Your task to perform on an android device: Clear the cart on ebay.com. Search for "macbook" on ebay.com, select the first entry, add it to the cart, then select checkout. Image 0: 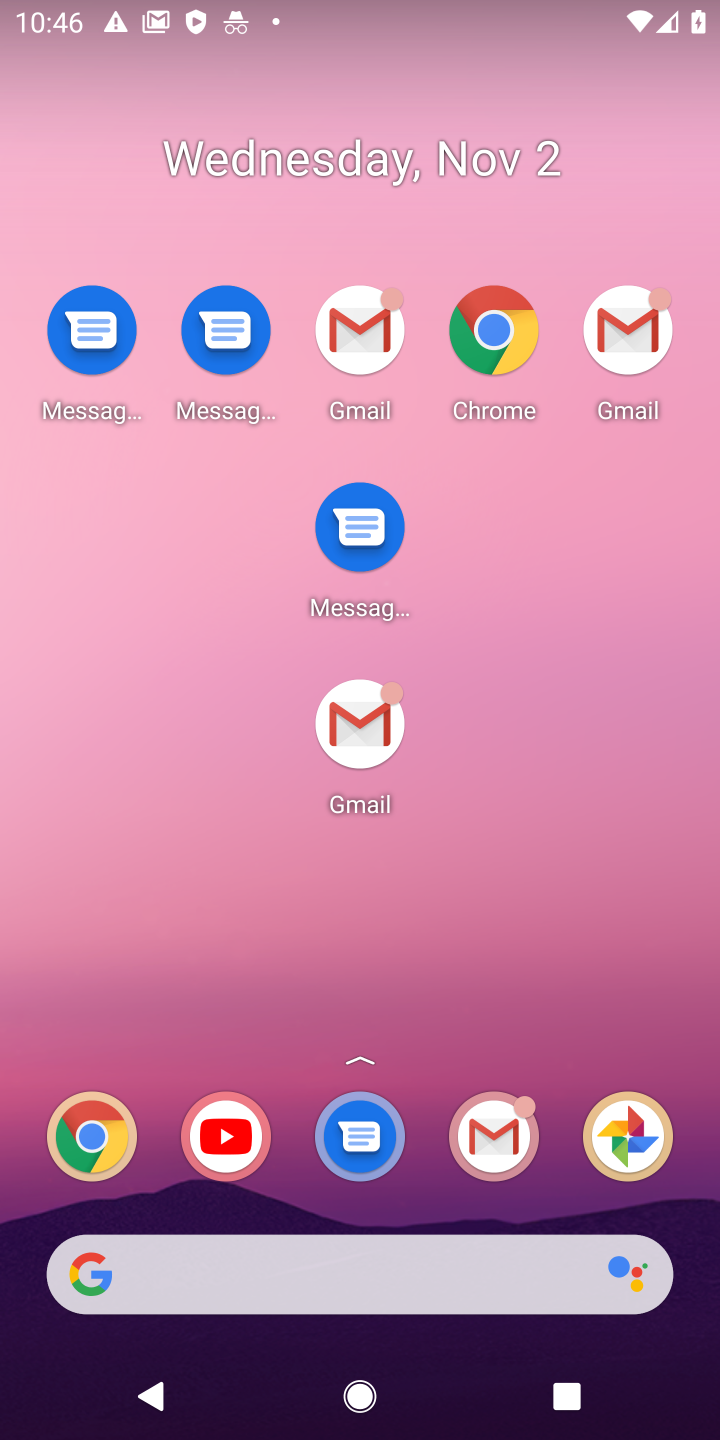
Step 0: click (84, 826)
Your task to perform on an android device: Clear the cart on ebay.com. Search for "macbook" on ebay.com, select the first entry, add it to the cart, then select checkout. Image 1: 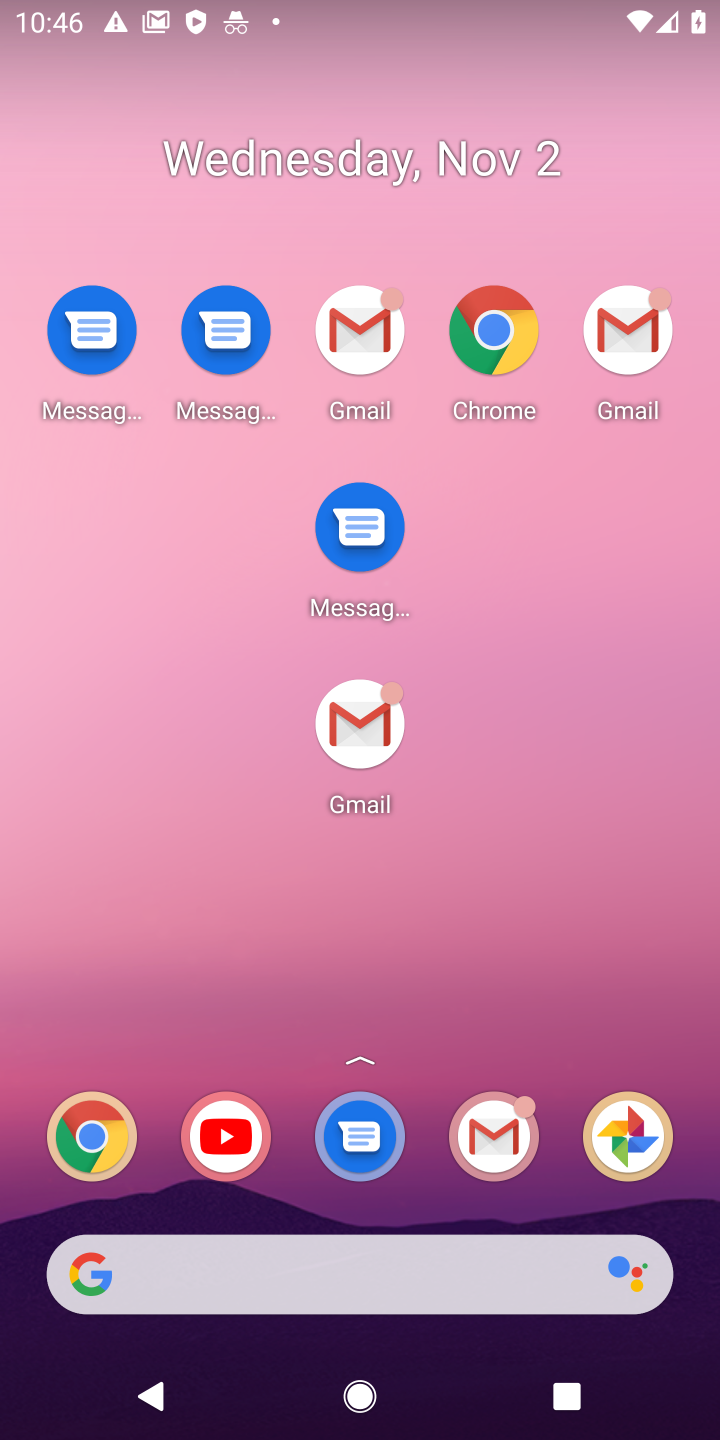
Step 1: drag from (315, 1013) to (319, 356)
Your task to perform on an android device: Clear the cart on ebay.com. Search for "macbook" on ebay.com, select the first entry, add it to the cart, then select checkout. Image 2: 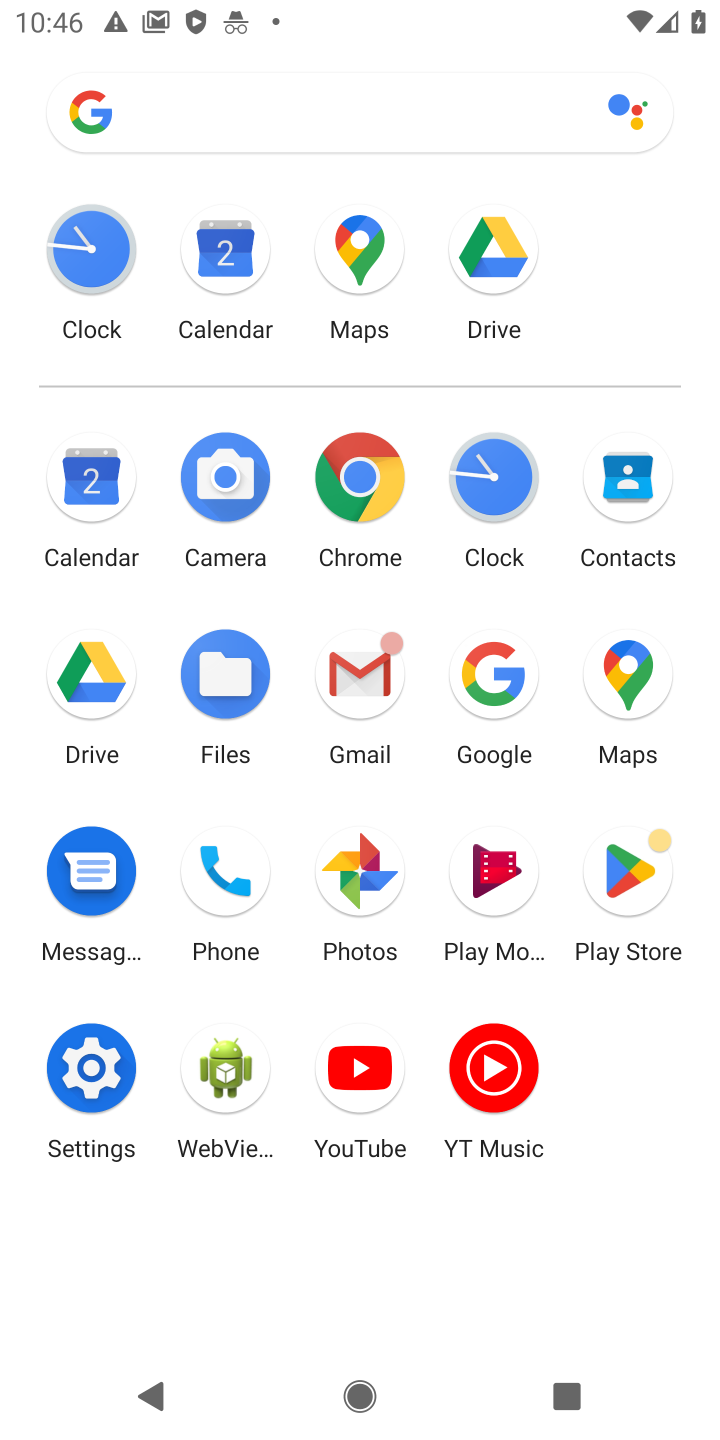
Step 2: click (480, 645)
Your task to perform on an android device: Clear the cart on ebay.com. Search for "macbook" on ebay.com, select the first entry, add it to the cart, then select checkout. Image 3: 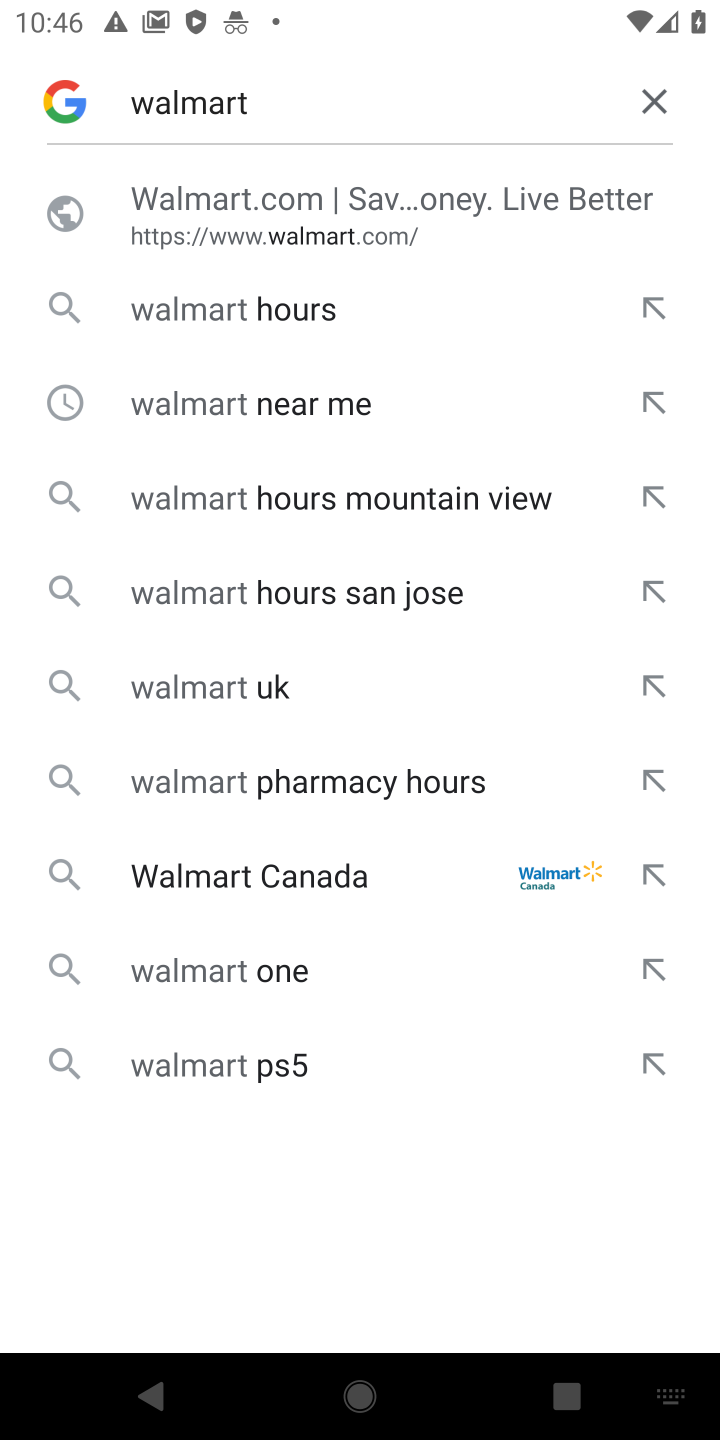
Step 3: click (649, 94)
Your task to perform on an android device: Clear the cart on ebay.com. Search for "macbook" on ebay.com, select the first entry, add it to the cart, then select checkout. Image 4: 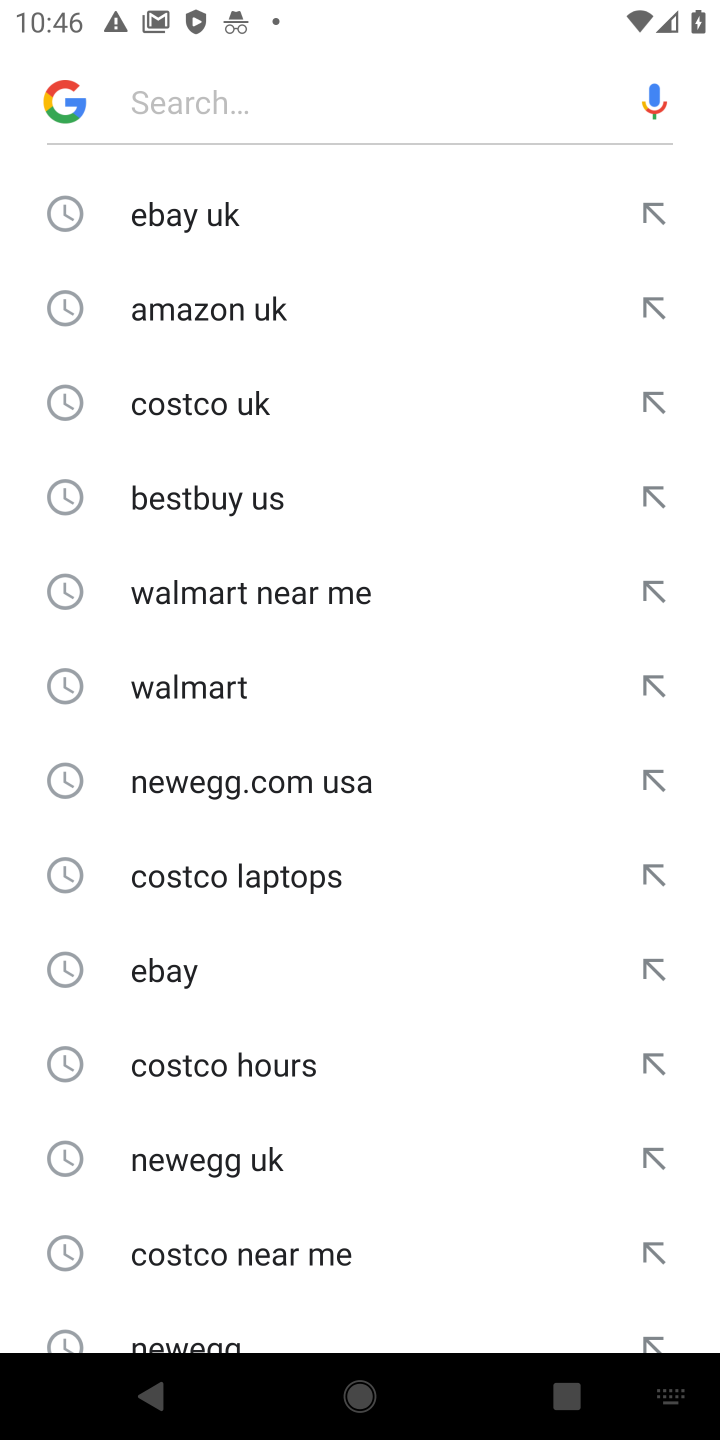
Step 4: click (218, 210)
Your task to perform on an android device: Clear the cart on ebay.com. Search for "macbook" on ebay.com, select the first entry, add it to the cart, then select checkout. Image 5: 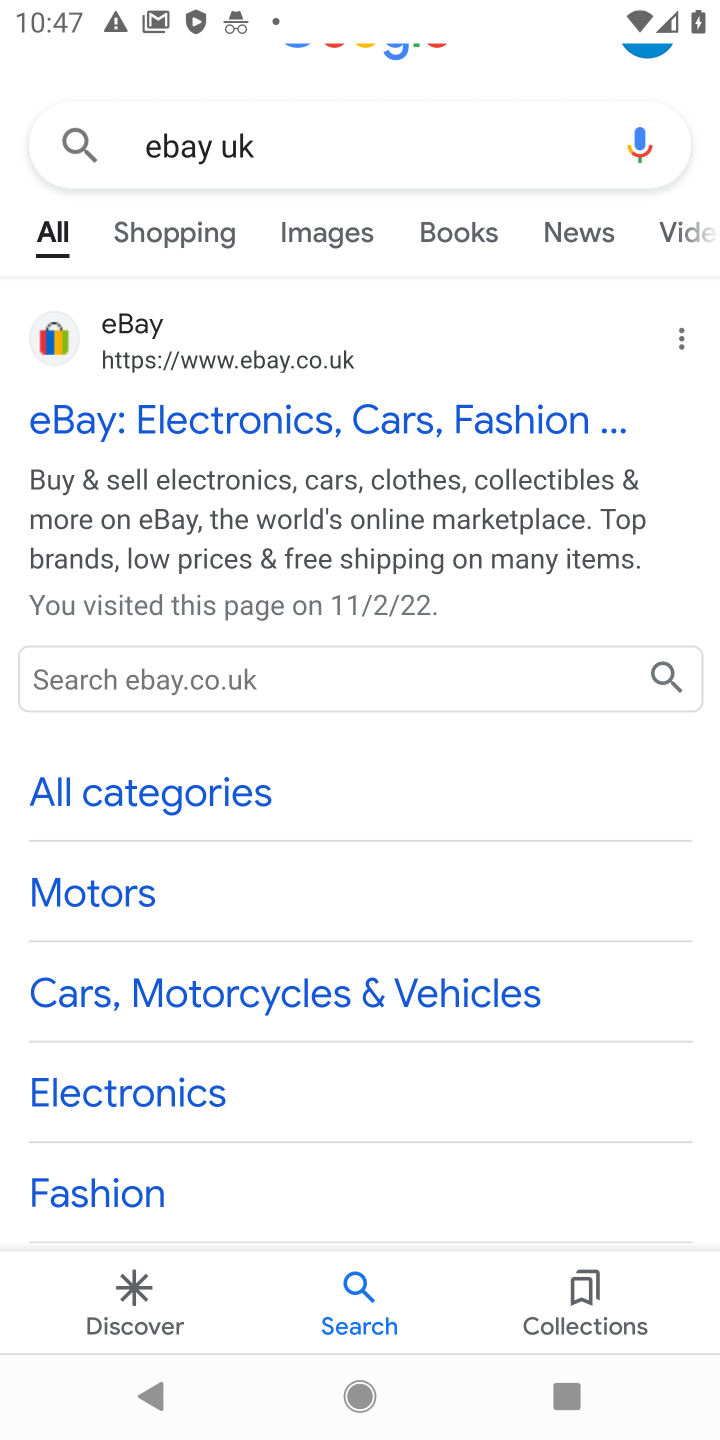
Step 5: click (173, 409)
Your task to perform on an android device: Clear the cart on ebay.com. Search for "macbook" on ebay.com, select the first entry, add it to the cart, then select checkout. Image 6: 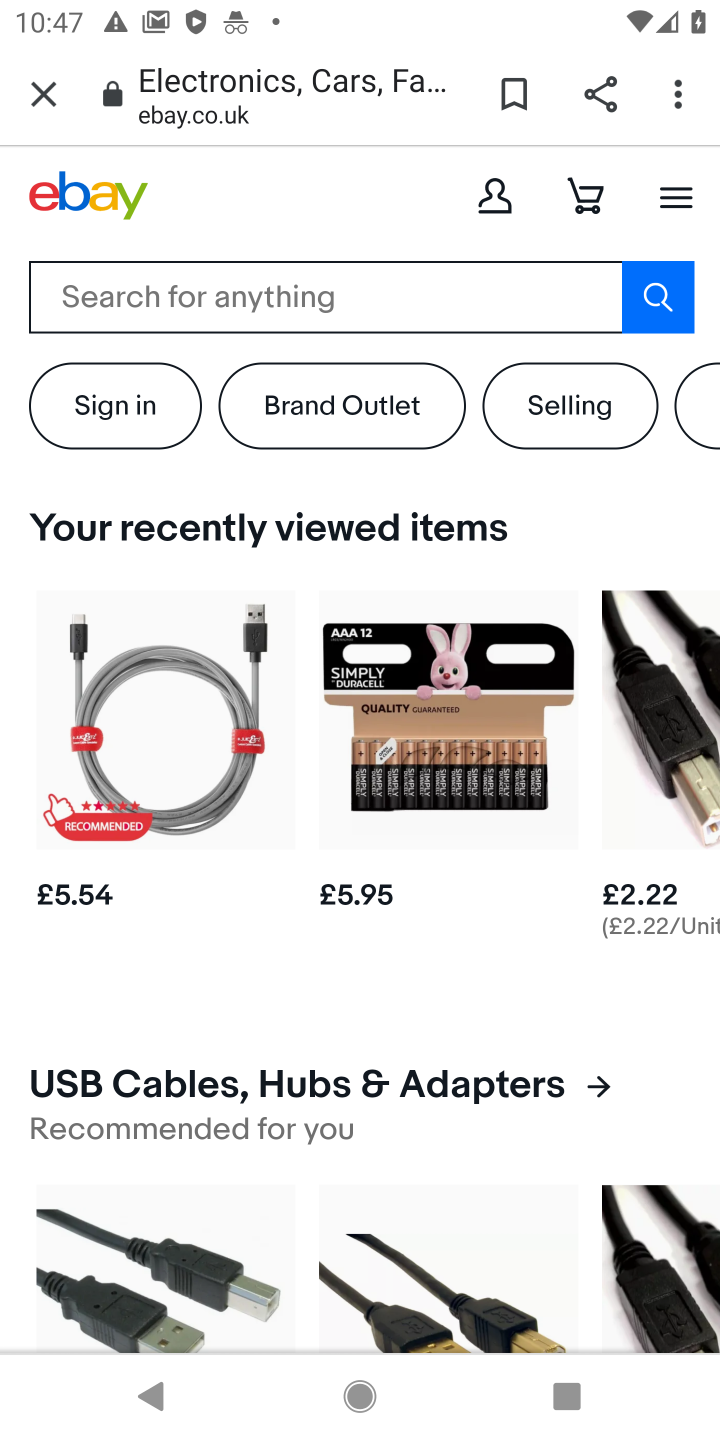
Step 6: click (390, 291)
Your task to perform on an android device: Clear the cart on ebay.com. Search for "macbook" on ebay.com, select the first entry, add it to the cart, then select checkout. Image 7: 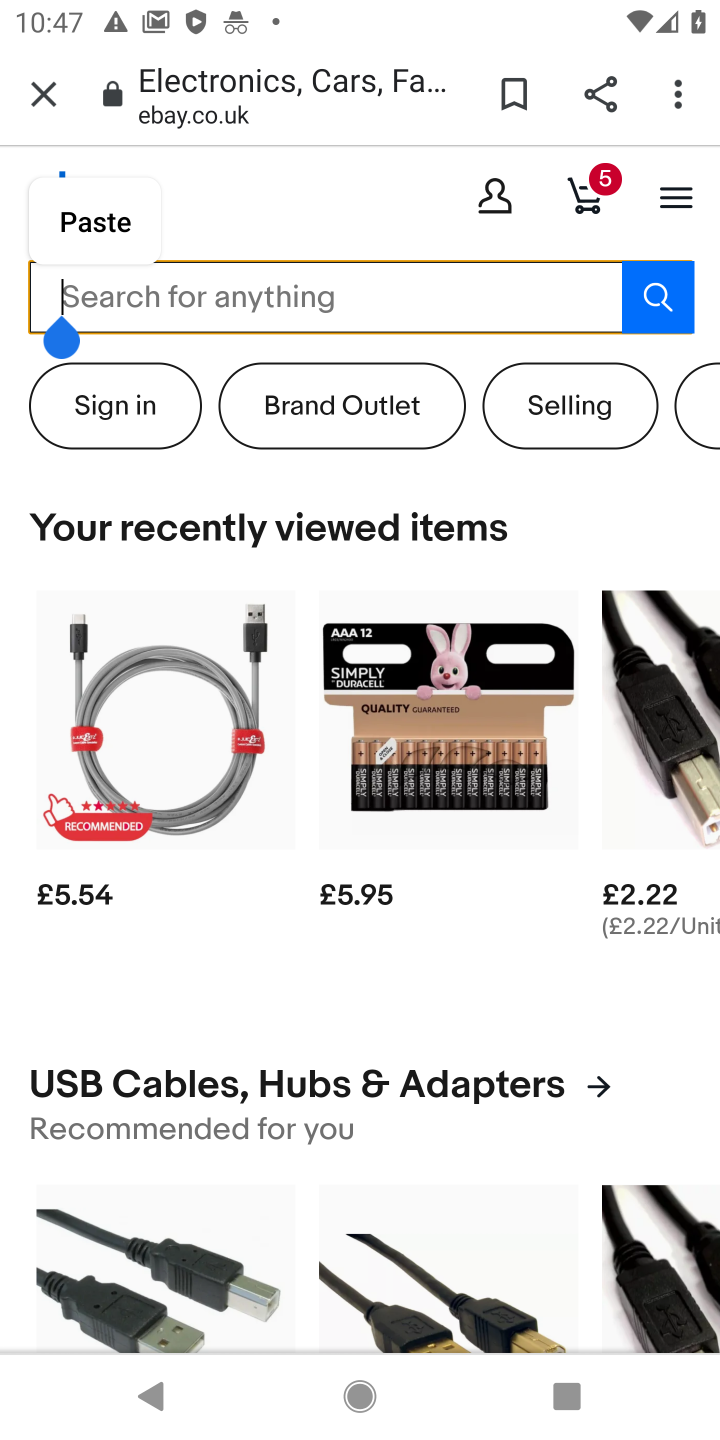
Step 7: click (296, 279)
Your task to perform on an android device: Clear the cart on ebay.com. Search for "macbook" on ebay.com, select the first entry, add it to the cart, then select checkout. Image 8: 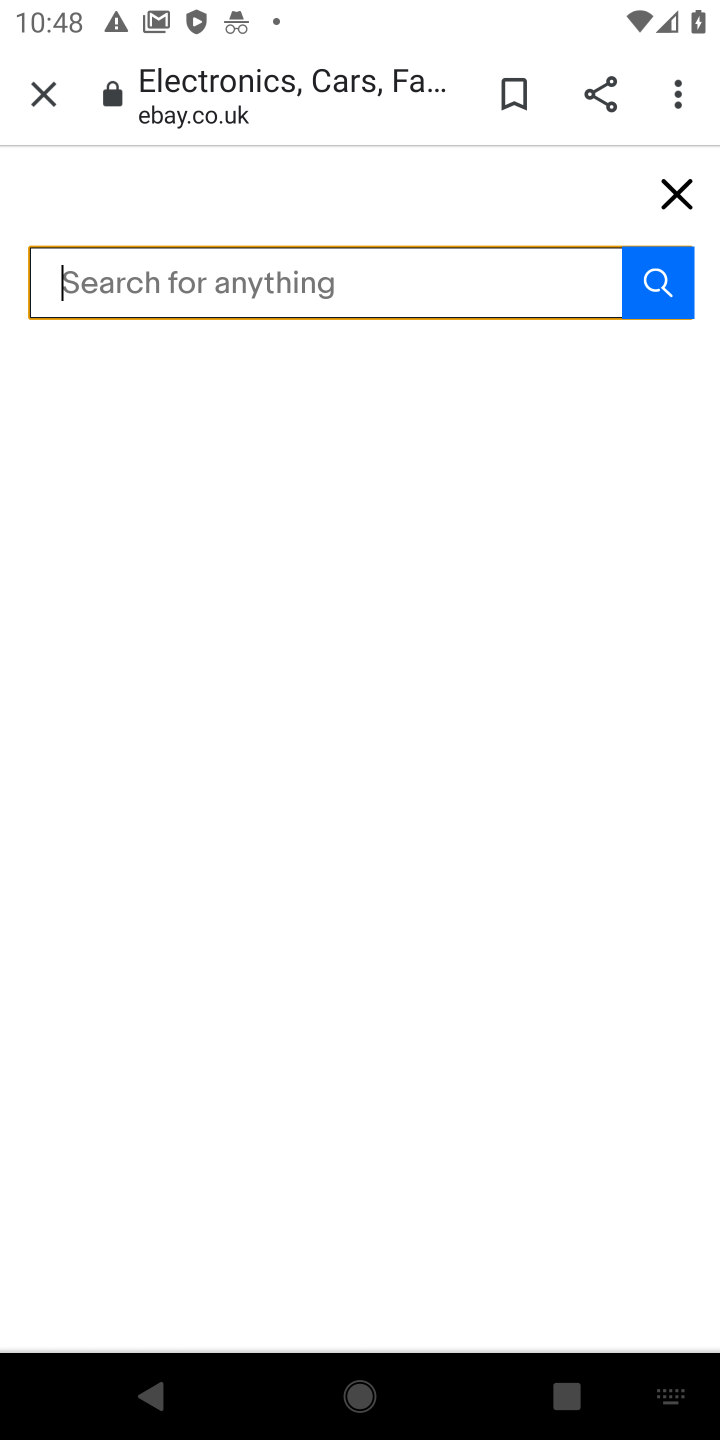
Step 8: click (274, 258)
Your task to perform on an android device: Clear the cart on ebay.com. Search for "macbook" on ebay.com, select the first entry, add it to the cart, then select checkout. Image 9: 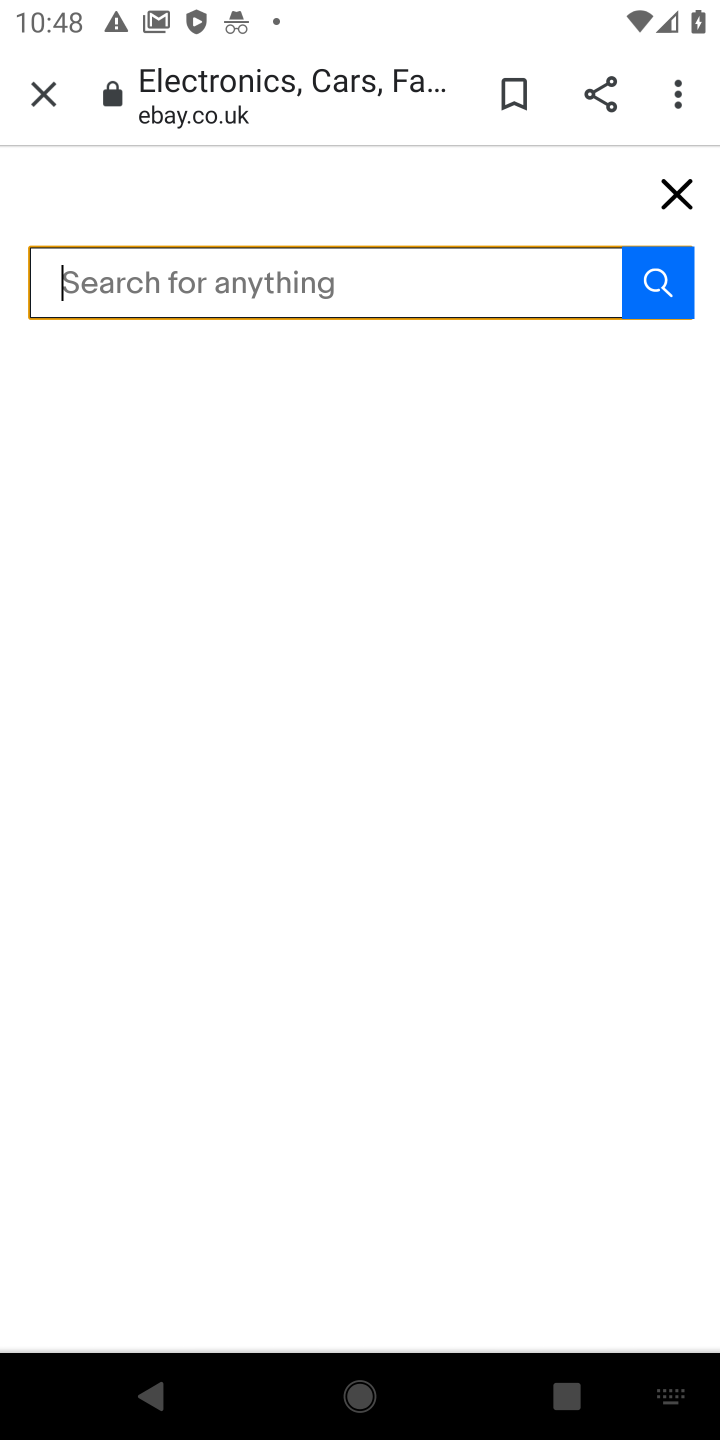
Step 9: type "macbook "
Your task to perform on an android device: Clear the cart on ebay.com. Search for "macbook" on ebay.com, select the first entry, add it to the cart, then select checkout. Image 10: 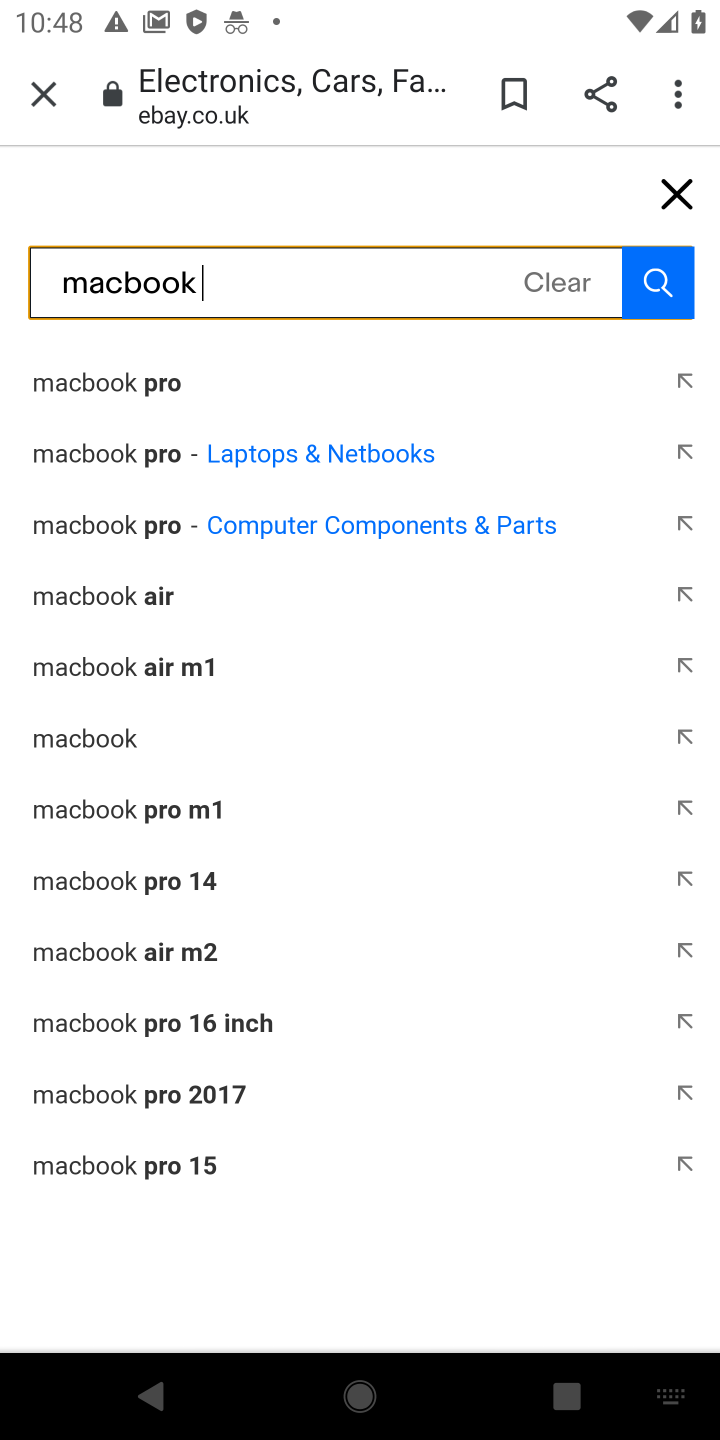
Step 10: click (128, 376)
Your task to perform on an android device: Clear the cart on ebay.com. Search for "macbook" on ebay.com, select the first entry, add it to the cart, then select checkout. Image 11: 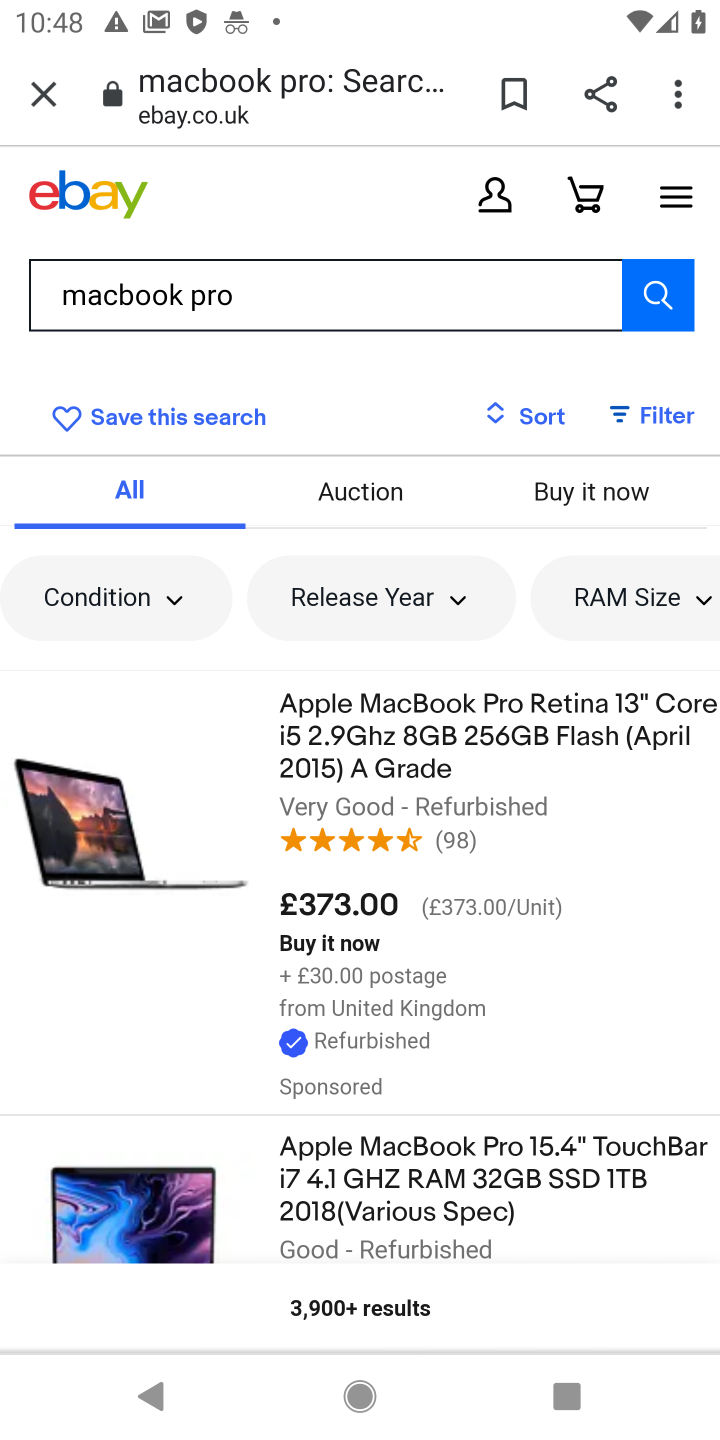
Step 11: click (418, 724)
Your task to perform on an android device: Clear the cart on ebay.com. Search for "macbook" on ebay.com, select the first entry, add it to the cart, then select checkout. Image 12: 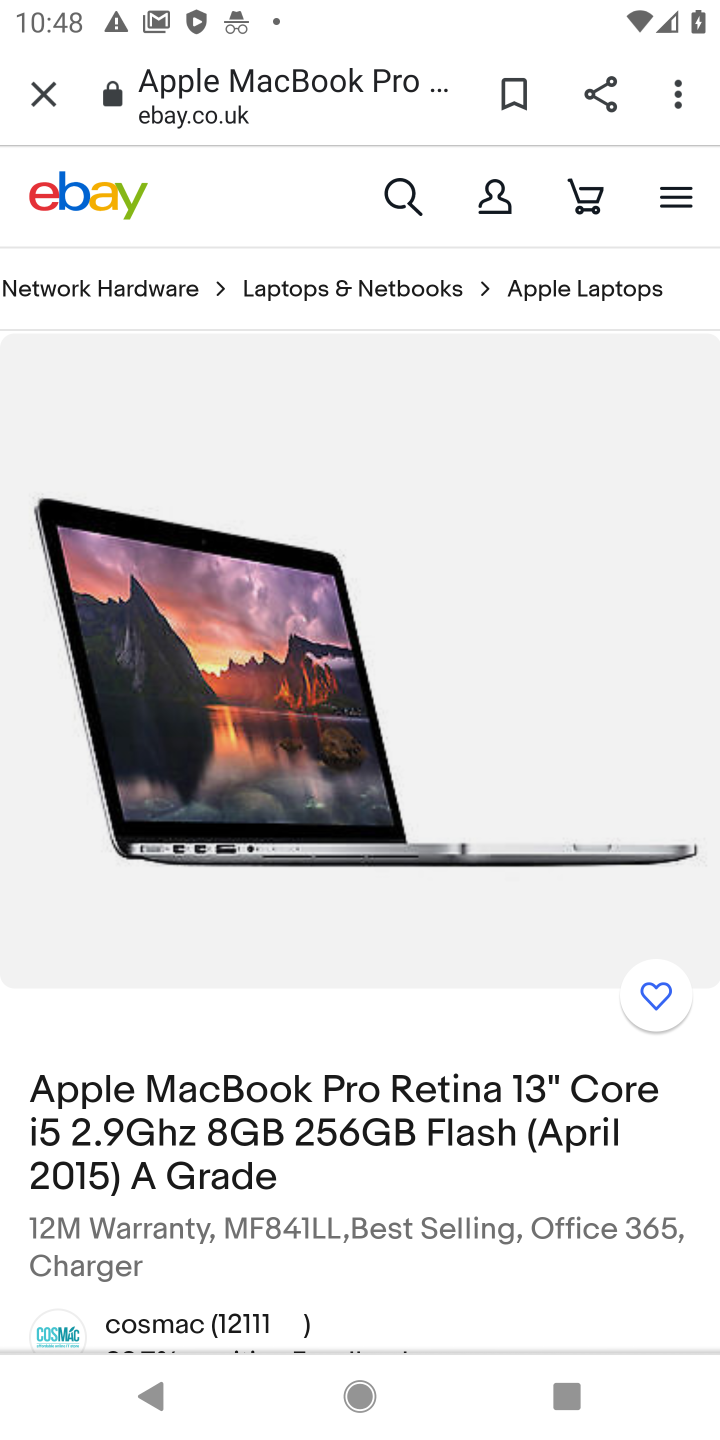
Step 12: drag from (311, 874) to (374, 398)
Your task to perform on an android device: Clear the cart on ebay.com. Search for "macbook" on ebay.com, select the first entry, add it to the cart, then select checkout. Image 13: 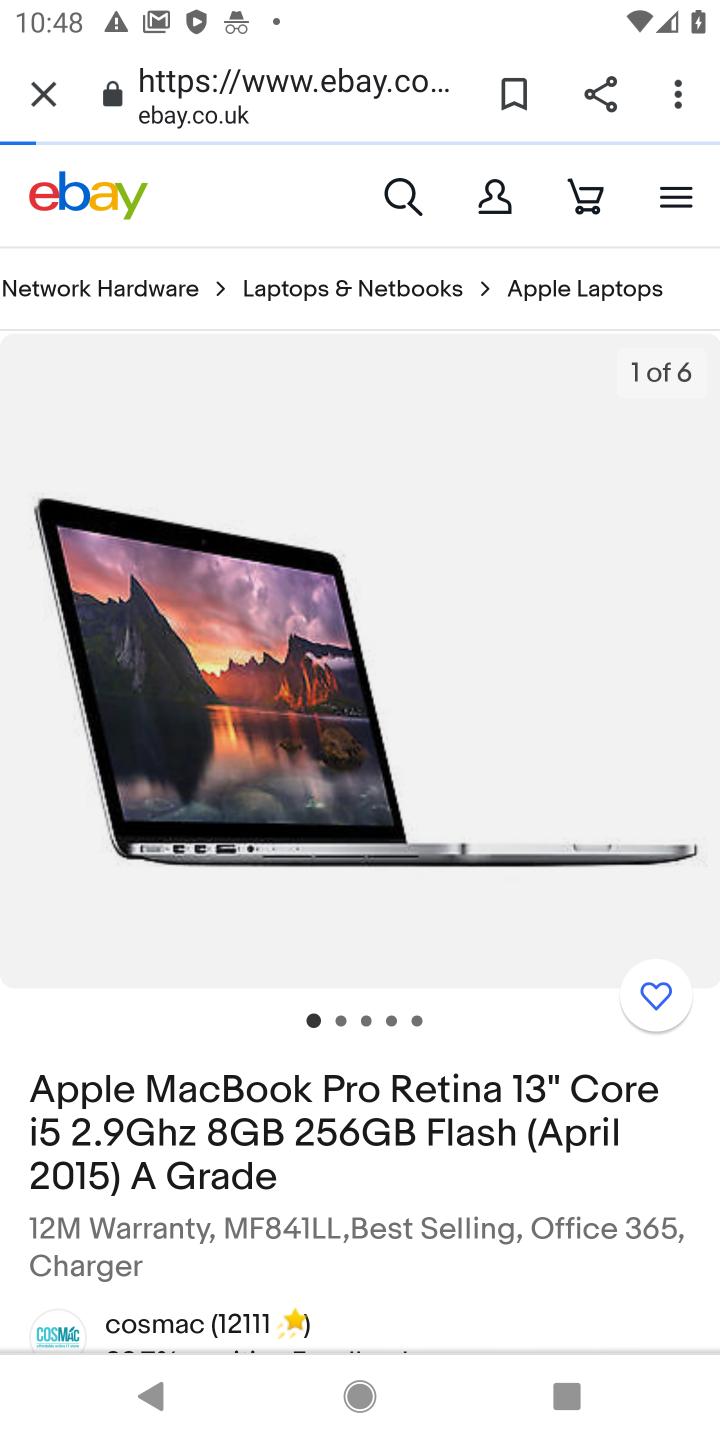
Step 13: drag from (334, 1098) to (350, 568)
Your task to perform on an android device: Clear the cart on ebay.com. Search for "macbook" on ebay.com, select the first entry, add it to the cart, then select checkout. Image 14: 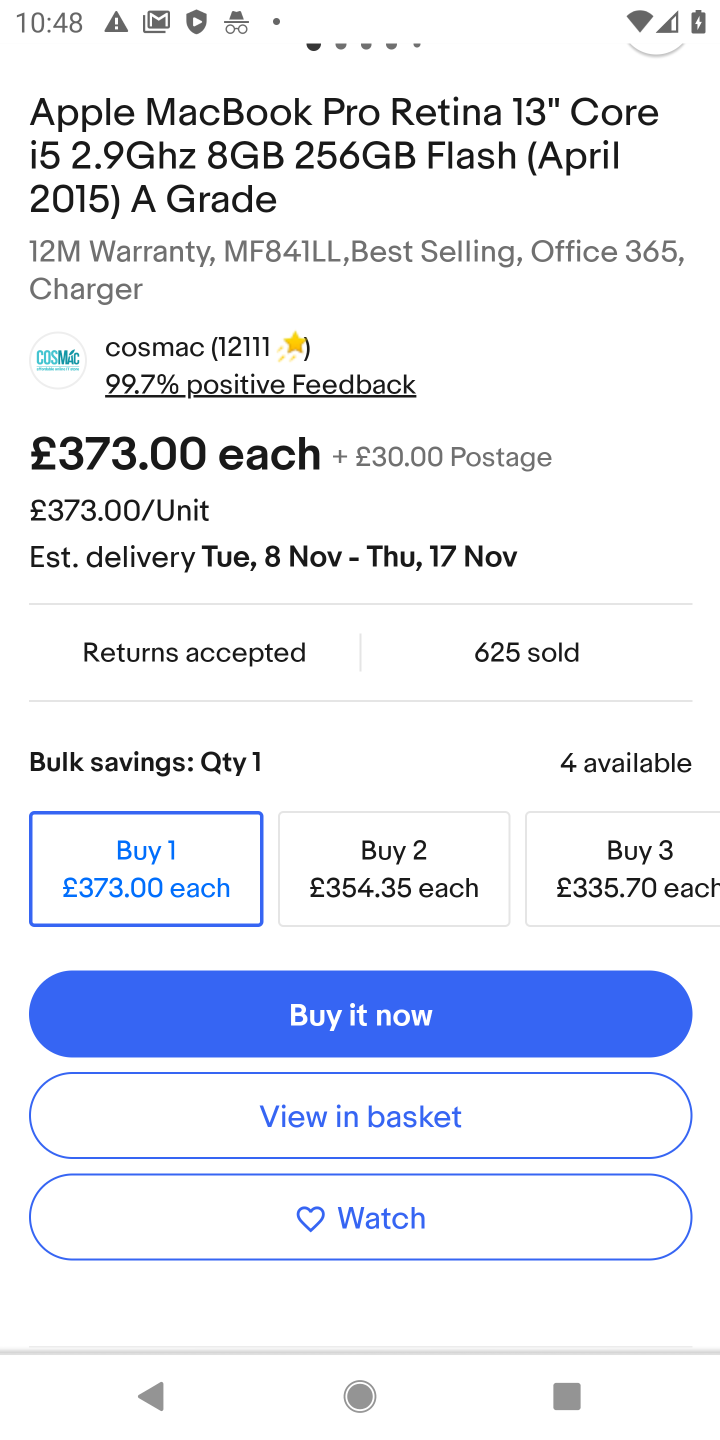
Step 14: click (327, 1114)
Your task to perform on an android device: Clear the cart on ebay.com. Search for "macbook" on ebay.com, select the first entry, add it to the cart, then select checkout. Image 15: 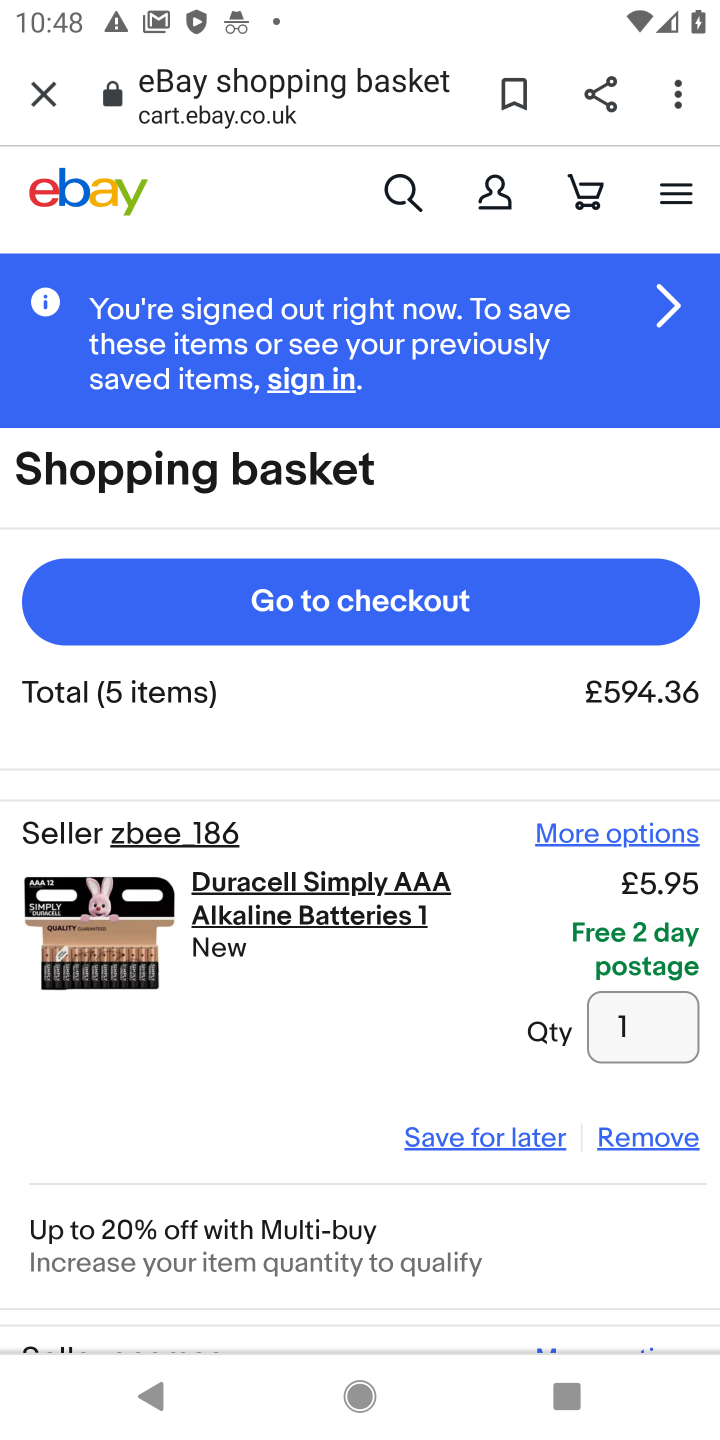
Step 15: task complete